Your task to perform on an android device: toggle translation in the chrome app Image 0: 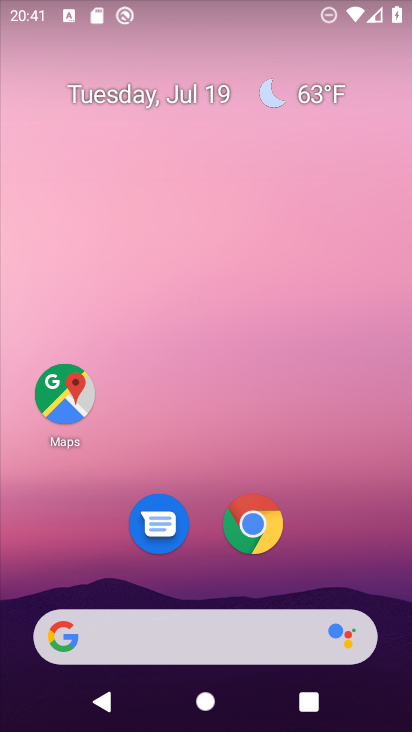
Step 0: click (257, 524)
Your task to perform on an android device: toggle translation in the chrome app Image 1: 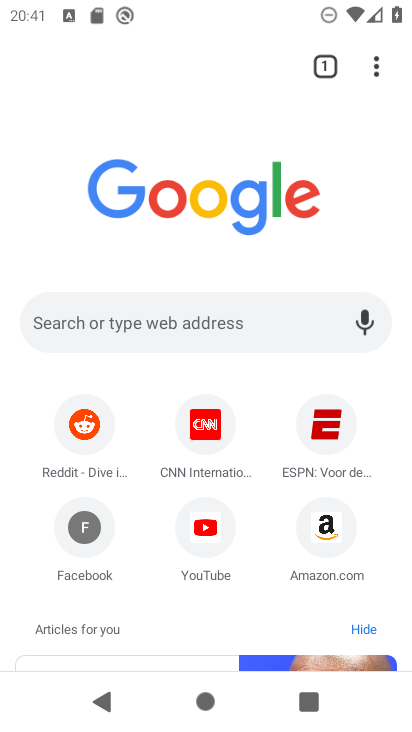
Step 1: click (372, 66)
Your task to perform on an android device: toggle translation in the chrome app Image 2: 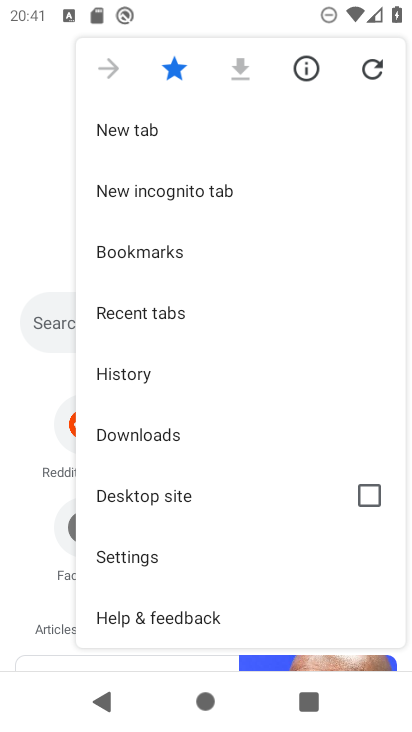
Step 2: click (147, 560)
Your task to perform on an android device: toggle translation in the chrome app Image 3: 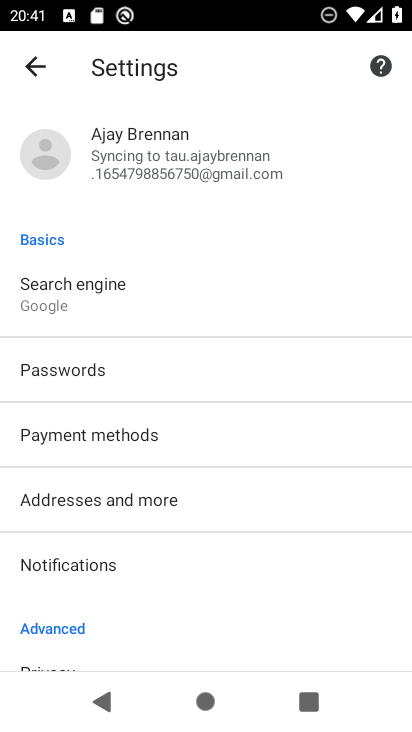
Step 3: drag from (234, 572) to (258, 248)
Your task to perform on an android device: toggle translation in the chrome app Image 4: 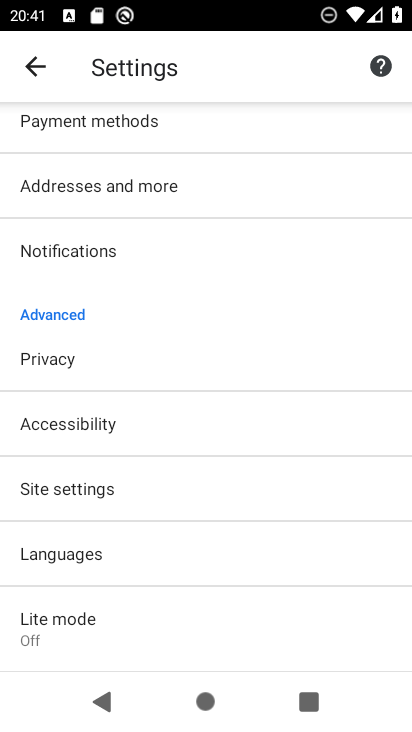
Step 4: click (112, 550)
Your task to perform on an android device: toggle translation in the chrome app Image 5: 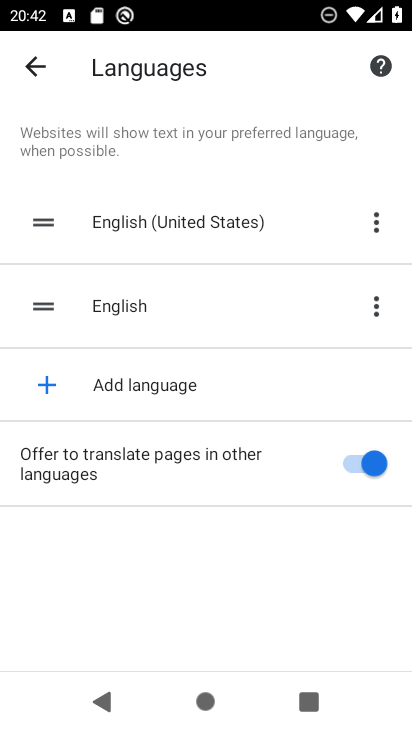
Step 5: click (357, 460)
Your task to perform on an android device: toggle translation in the chrome app Image 6: 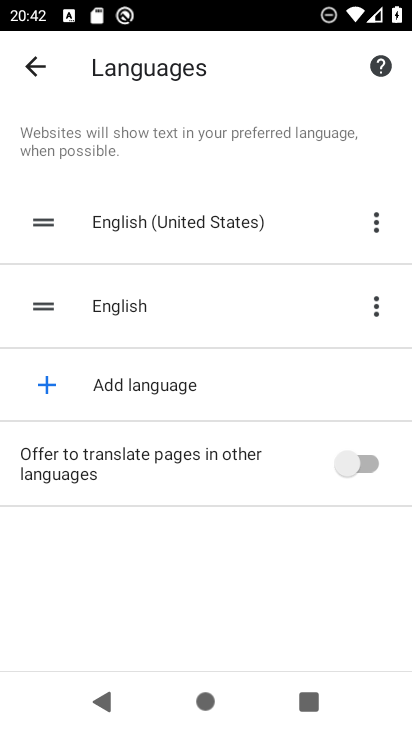
Step 6: task complete